Your task to perform on an android device: Open CNN.com Image 0: 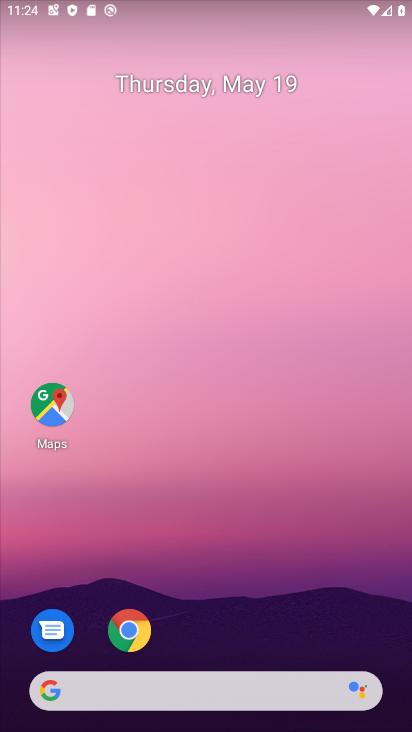
Step 0: click (129, 629)
Your task to perform on an android device: Open CNN.com Image 1: 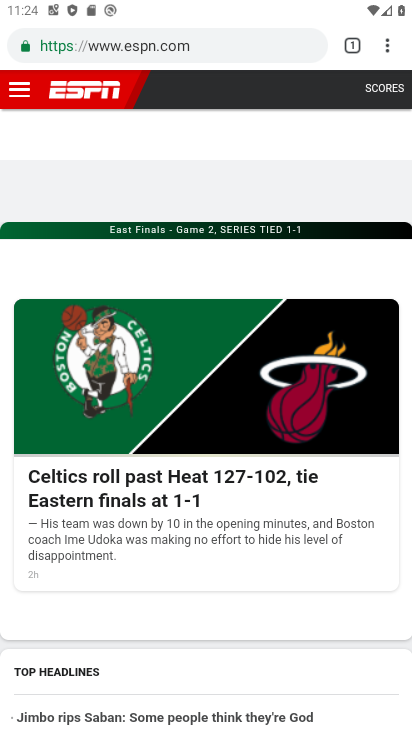
Step 1: click (217, 45)
Your task to perform on an android device: Open CNN.com Image 2: 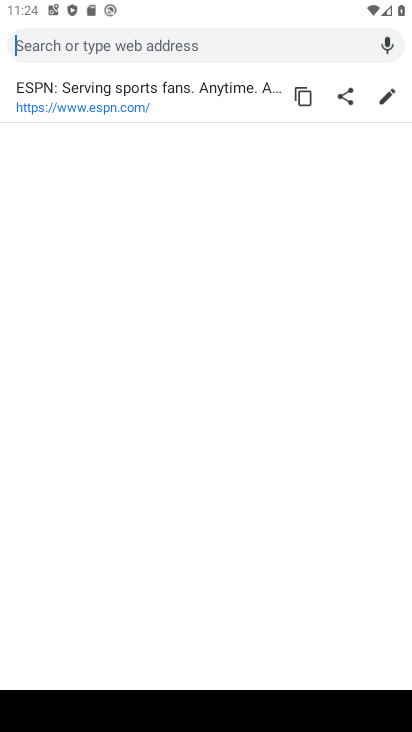
Step 2: type "CNN.com"
Your task to perform on an android device: Open CNN.com Image 3: 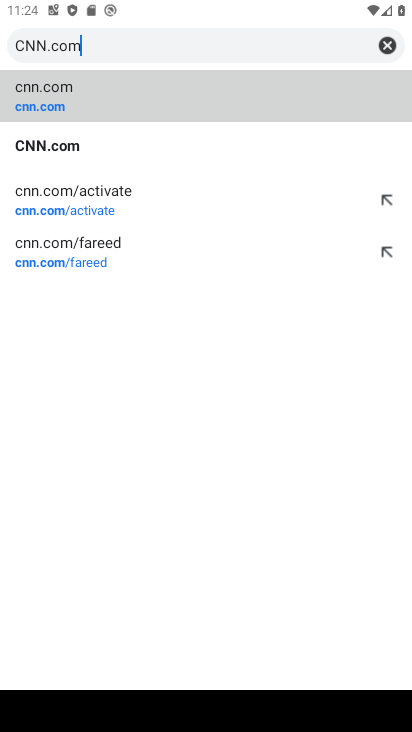
Step 3: type ""
Your task to perform on an android device: Open CNN.com Image 4: 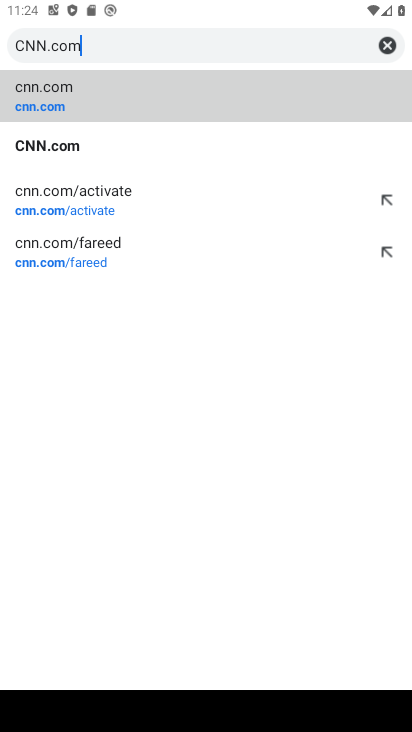
Step 4: click (69, 143)
Your task to perform on an android device: Open CNN.com Image 5: 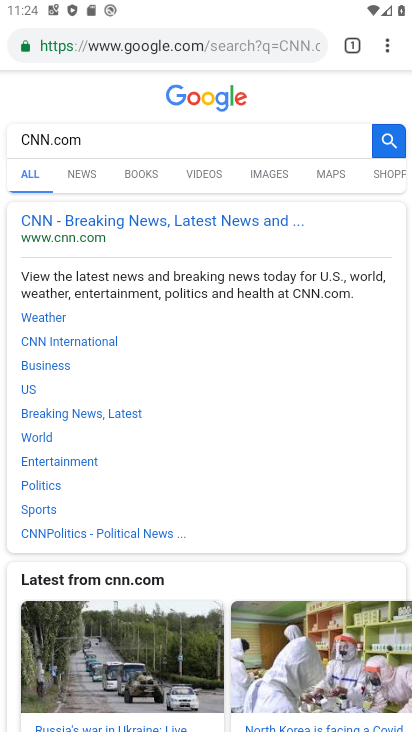
Step 5: click (120, 217)
Your task to perform on an android device: Open CNN.com Image 6: 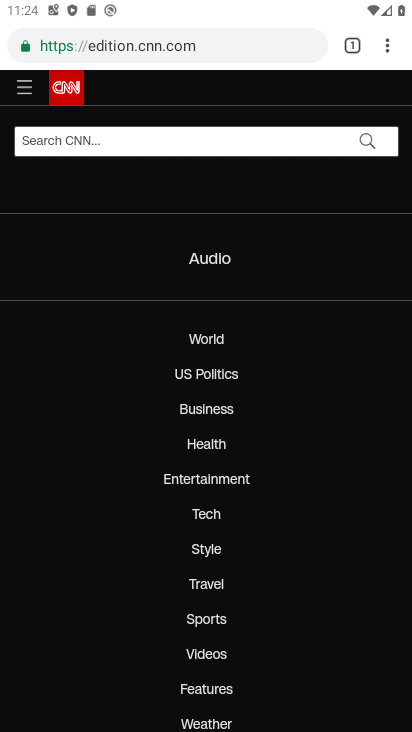
Step 6: task complete